Your task to perform on an android device: Open calendar and show me the third week of next month Image 0: 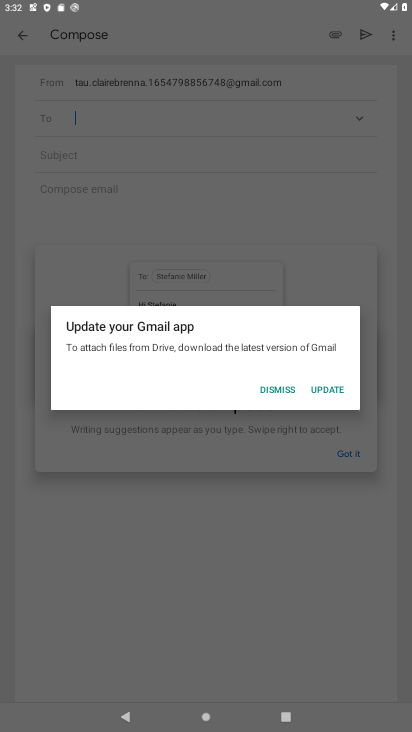
Step 0: press home button
Your task to perform on an android device: Open calendar and show me the third week of next month Image 1: 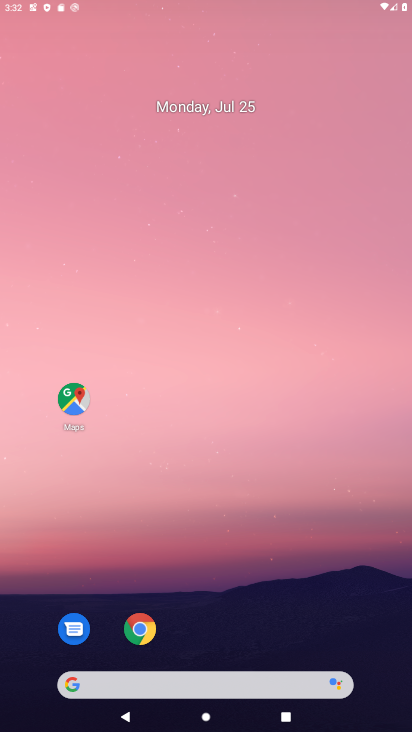
Step 1: drag from (178, 694) to (190, 2)
Your task to perform on an android device: Open calendar and show me the third week of next month Image 2: 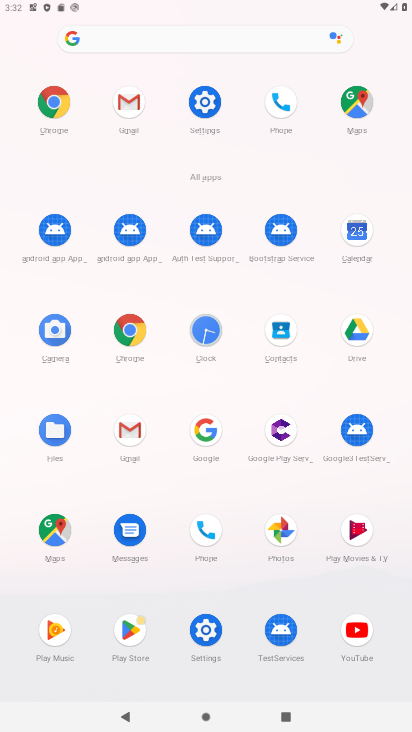
Step 2: click (359, 243)
Your task to perform on an android device: Open calendar and show me the third week of next month Image 3: 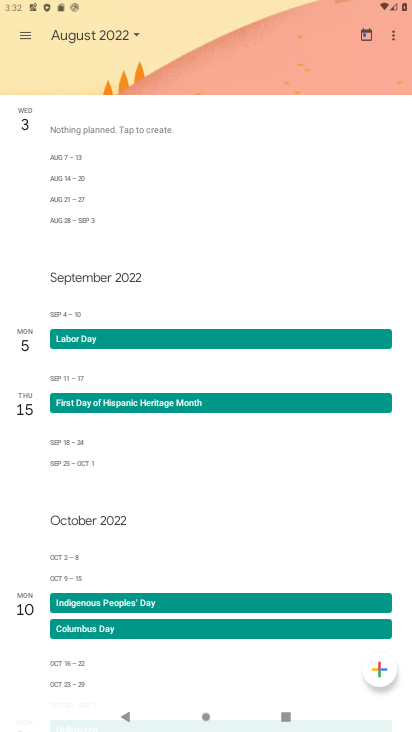
Step 3: click (130, 36)
Your task to perform on an android device: Open calendar and show me the third week of next month Image 4: 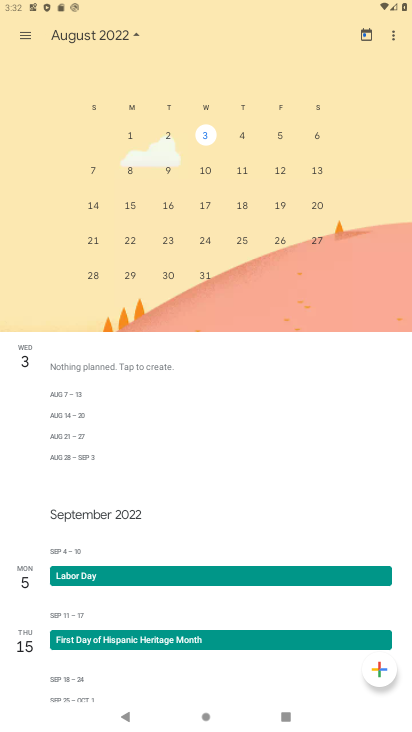
Step 4: click (204, 202)
Your task to perform on an android device: Open calendar and show me the third week of next month Image 5: 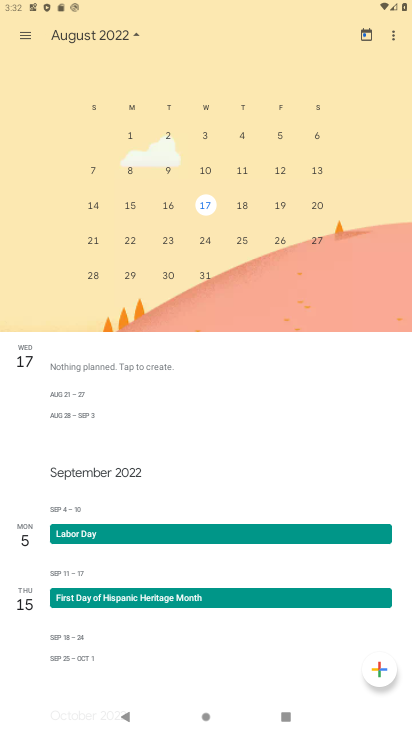
Step 5: click (26, 35)
Your task to perform on an android device: Open calendar and show me the third week of next month Image 6: 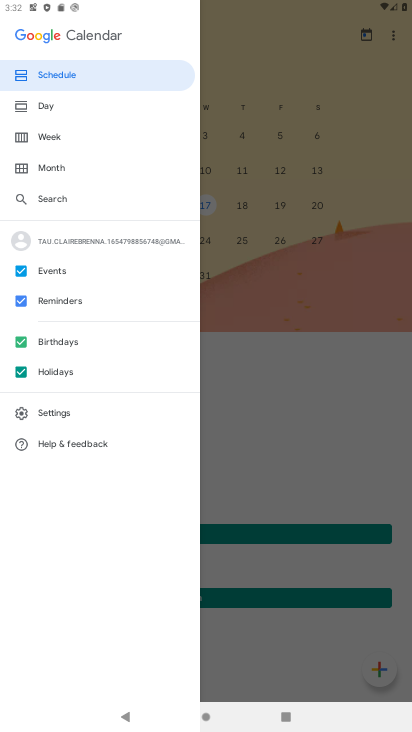
Step 6: click (55, 133)
Your task to perform on an android device: Open calendar and show me the third week of next month Image 7: 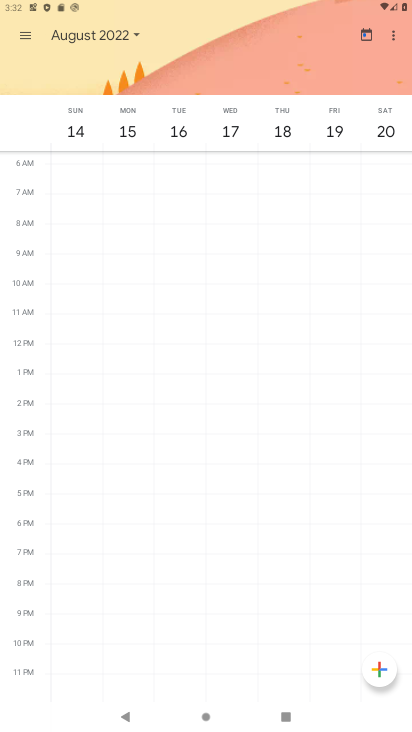
Step 7: task complete